Your task to perform on an android device: Go to location settings Image 0: 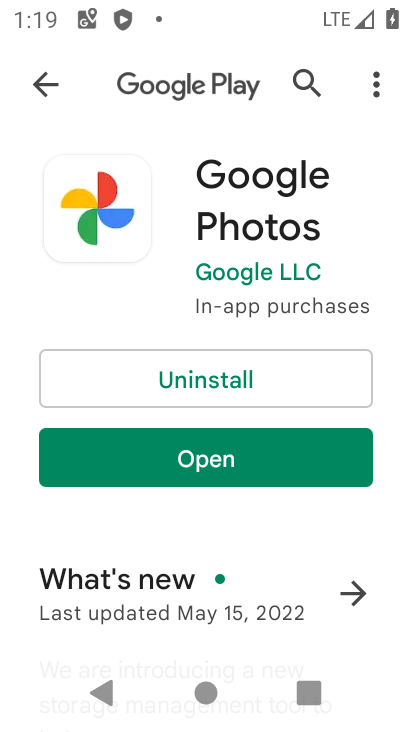
Step 0: press home button
Your task to perform on an android device: Go to location settings Image 1: 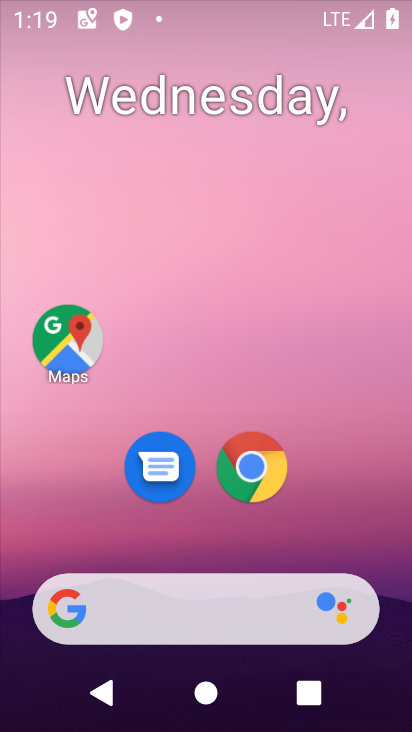
Step 1: drag from (211, 539) to (236, 71)
Your task to perform on an android device: Go to location settings Image 2: 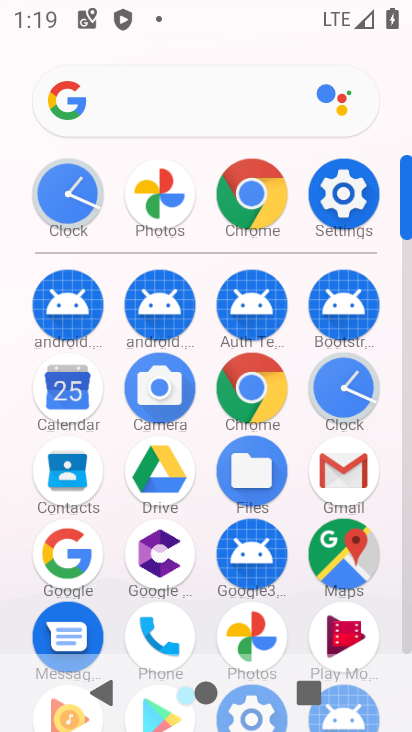
Step 2: click (345, 193)
Your task to perform on an android device: Go to location settings Image 3: 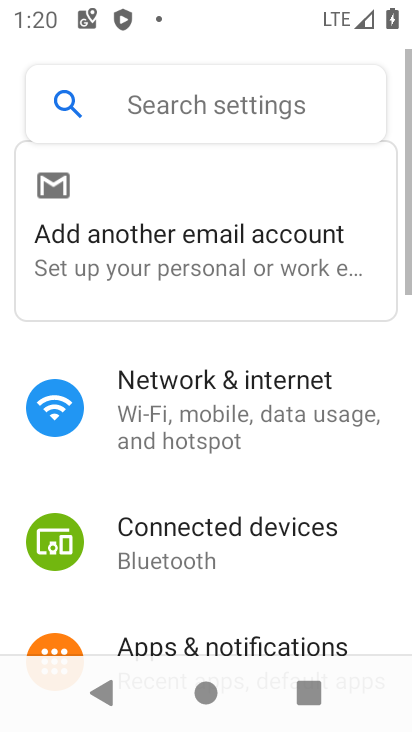
Step 3: drag from (242, 594) to (288, 64)
Your task to perform on an android device: Go to location settings Image 4: 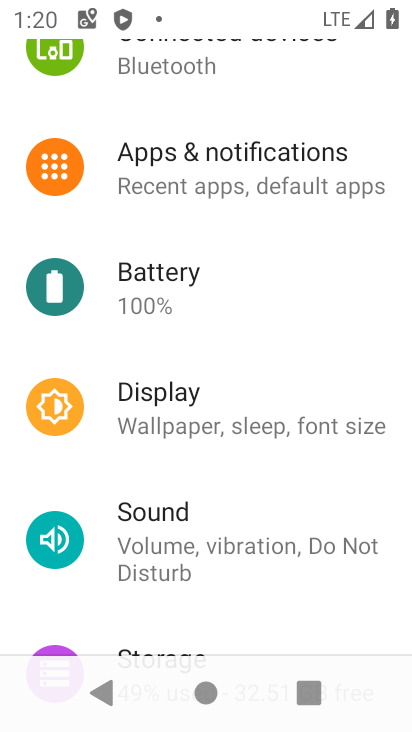
Step 4: drag from (260, 609) to (324, 114)
Your task to perform on an android device: Go to location settings Image 5: 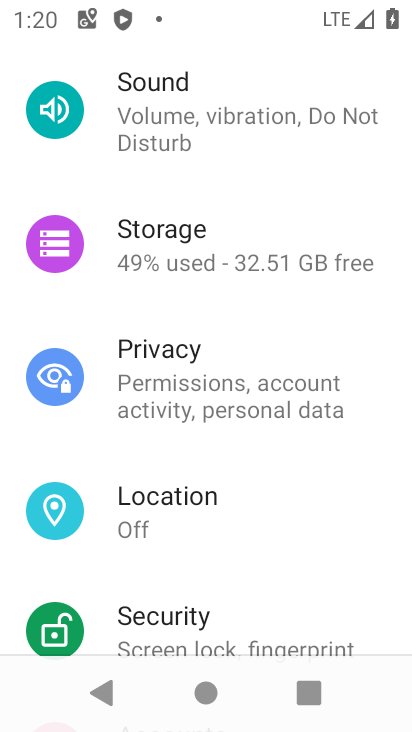
Step 5: click (156, 493)
Your task to perform on an android device: Go to location settings Image 6: 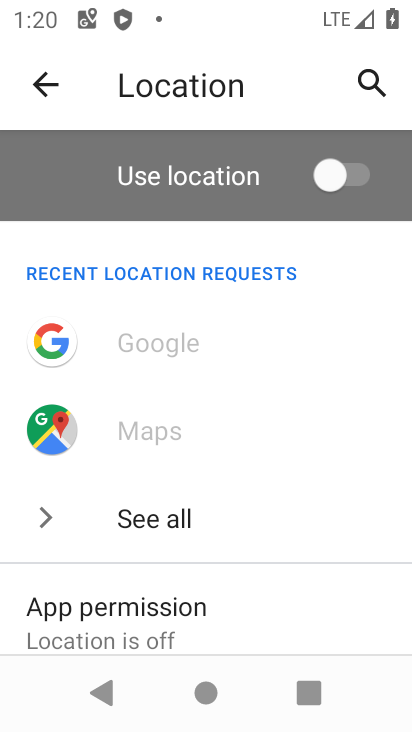
Step 6: task complete